Your task to perform on an android device: Open calendar and show me the third week of next month Image 0: 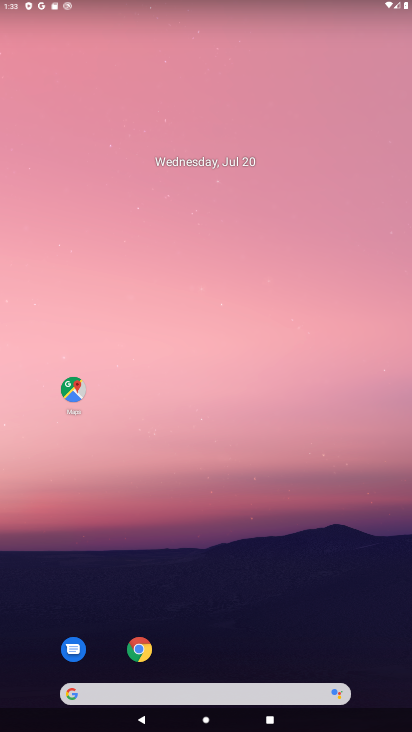
Step 0: drag from (306, 662) to (245, 279)
Your task to perform on an android device: Open calendar and show me the third week of next month Image 1: 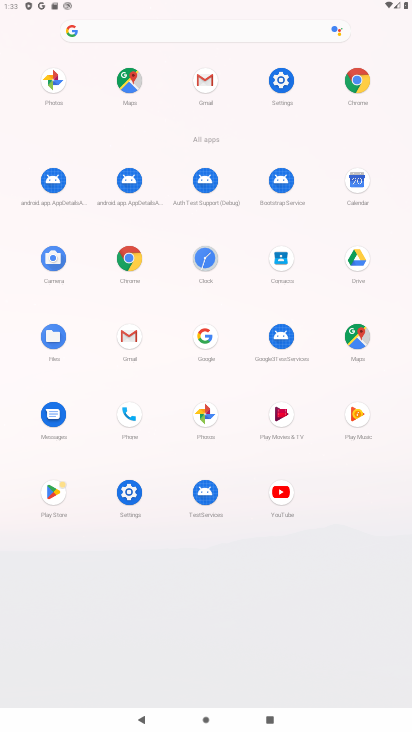
Step 1: click (359, 171)
Your task to perform on an android device: Open calendar and show me the third week of next month Image 2: 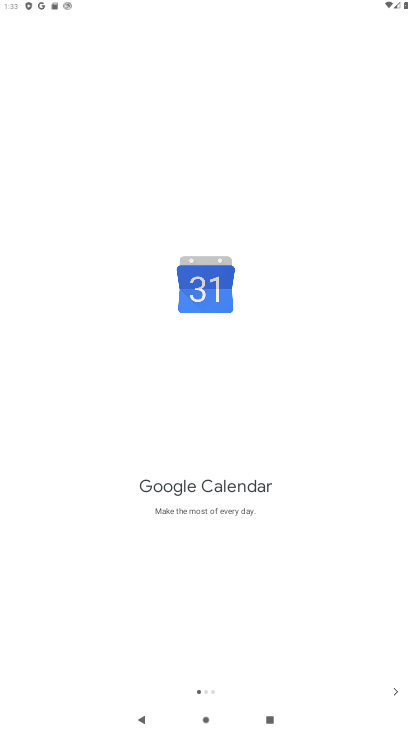
Step 2: click (395, 698)
Your task to perform on an android device: Open calendar and show me the third week of next month Image 3: 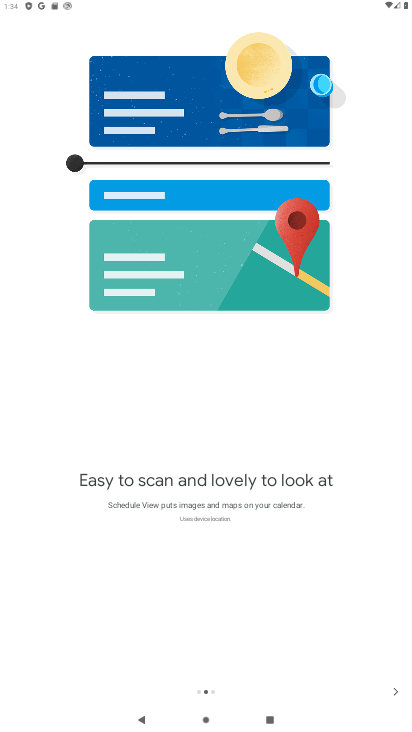
Step 3: click (395, 698)
Your task to perform on an android device: Open calendar and show me the third week of next month Image 4: 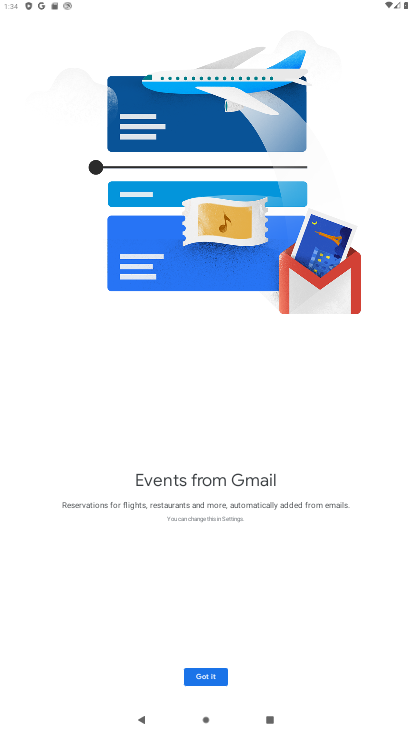
Step 4: click (197, 675)
Your task to perform on an android device: Open calendar and show me the third week of next month Image 5: 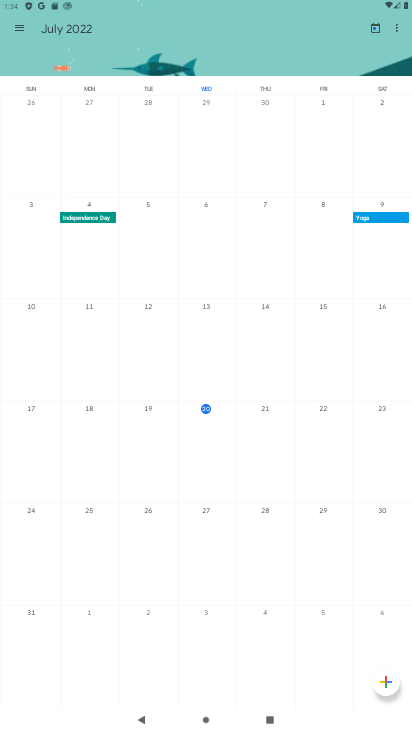
Step 5: click (16, 28)
Your task to perform on an android device: Open calendar and show me the third week of next month Image 6: 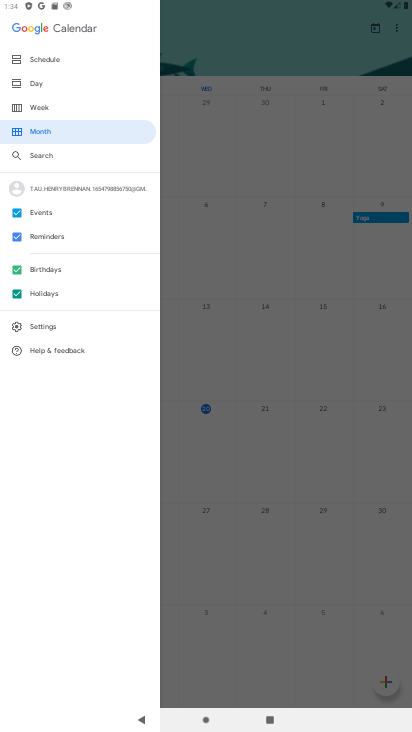
Step 6: click (38, 98)
Your task to perform on an android device: Open calendar and show me the third week of next month Image 7: 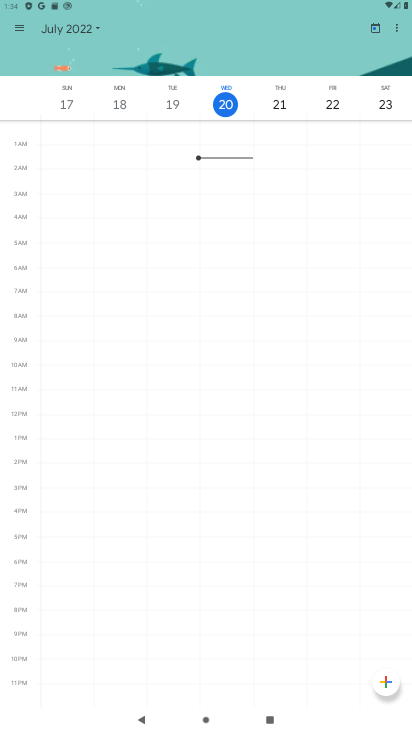
Step 7: click (84, 24)
Your task to perform on an android device: Open calendar and show me the third week of next month Image 8: 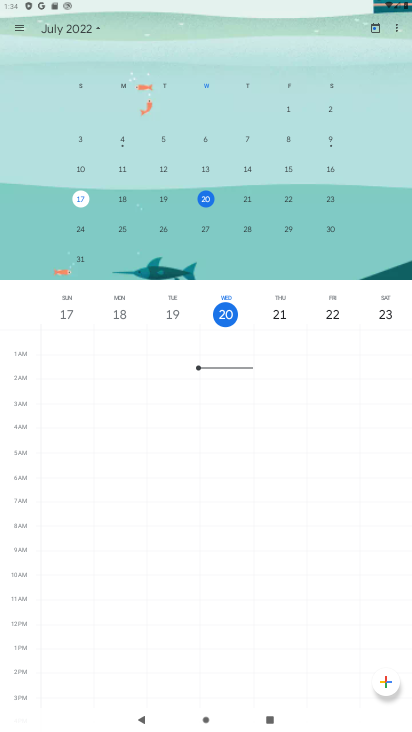
Step 8: click (90, 25)
Your task to perform on an android device: Open calendar and show me the third week of next month Image 9: 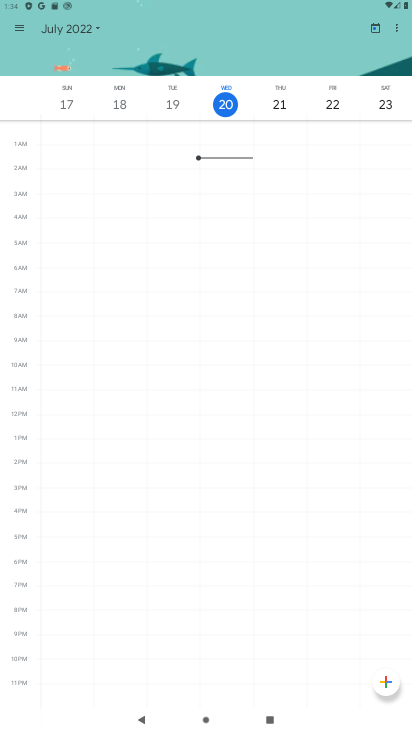
Step 9: click (90, 25)
Your task to perform on an android device: Open calendar and show me the third week of next month Image 10: 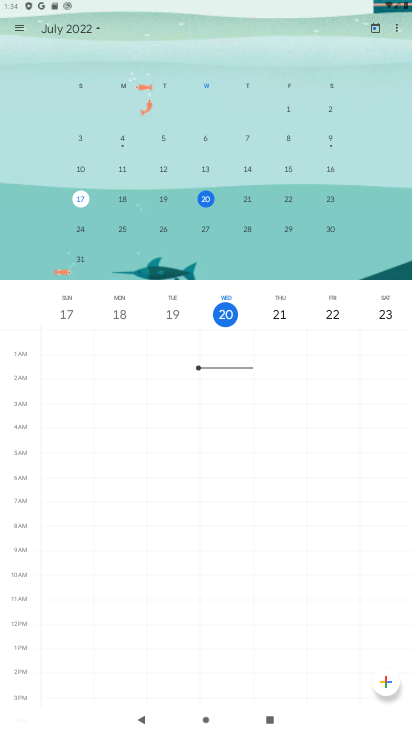
Step 10: drag from (351, 189) to (6, 190)
Your task to perform on an android device: Open calendar and show me the third week of next month Image 11: 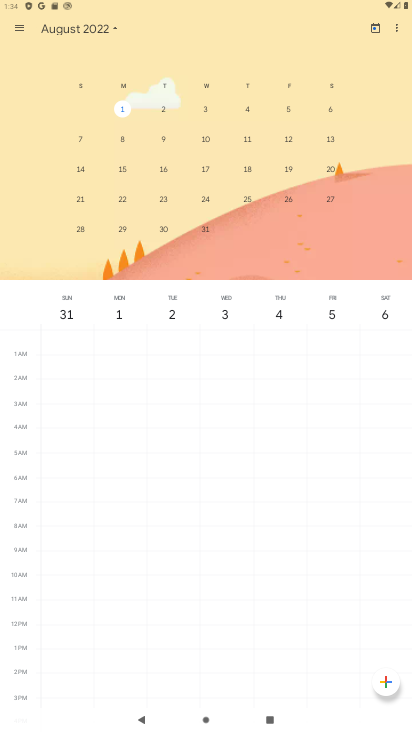
Step 11: click (201, 169)
Your task to perform on an android device: Open calendar and show me the third week of next month Image 12: 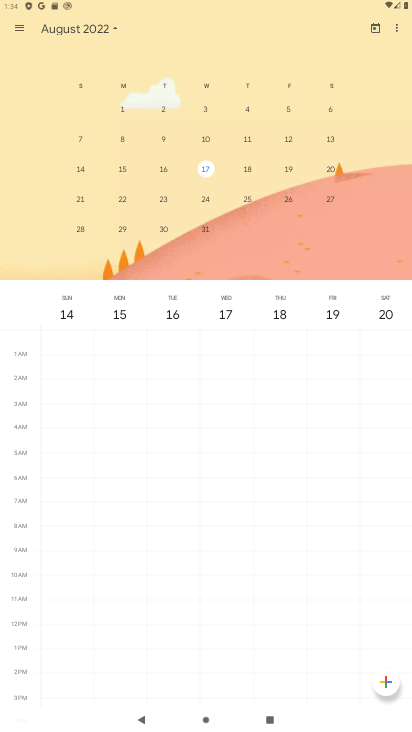
Step 12: task complete